Your task to perform on an android device: change the clock display to digital Image 0: 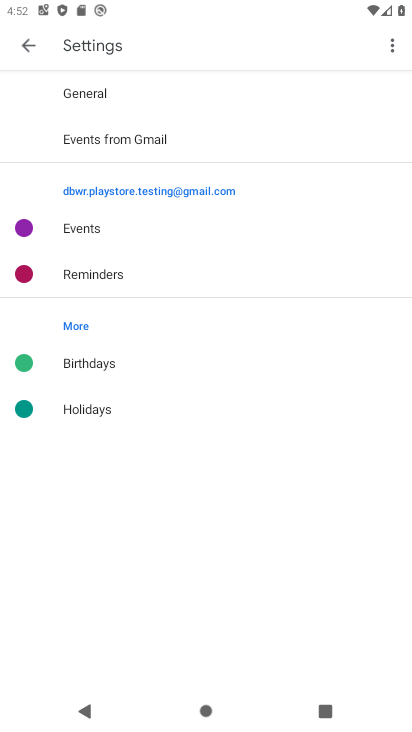
Step 0: press back button
Your task to perform on an android device: change the clock display to digital Image 1: 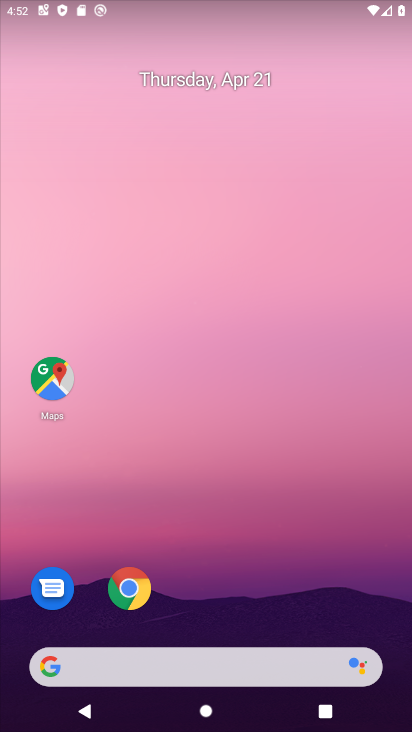
Step 1: drag from (196, 579) to (206, 96)
Your task to perform on an android device: change the clock display to digital Image 2: 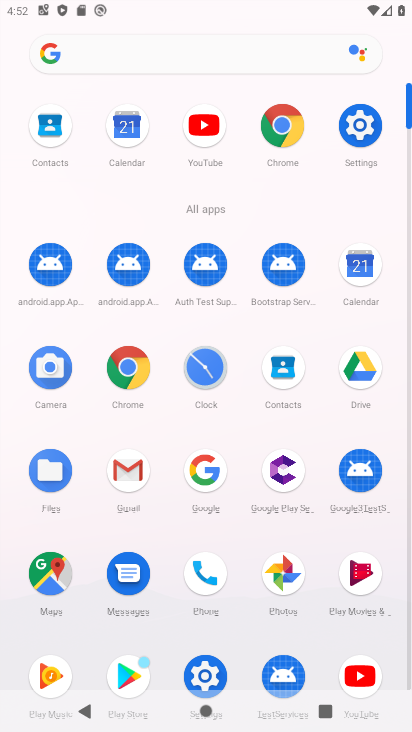
Step 2: click (213, 364)
Your task to perform on an android device: change the clock display to digital Image 3: 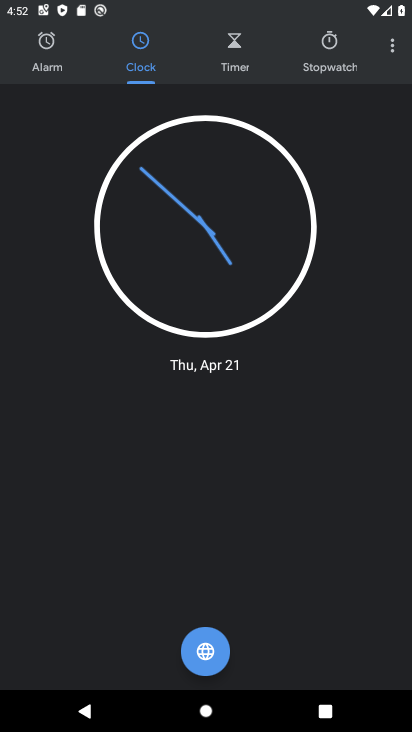
Step 3: drag from (395, 44) to (377, 125)
Your task to perform on an android device: change the clock display to digital Image 4: 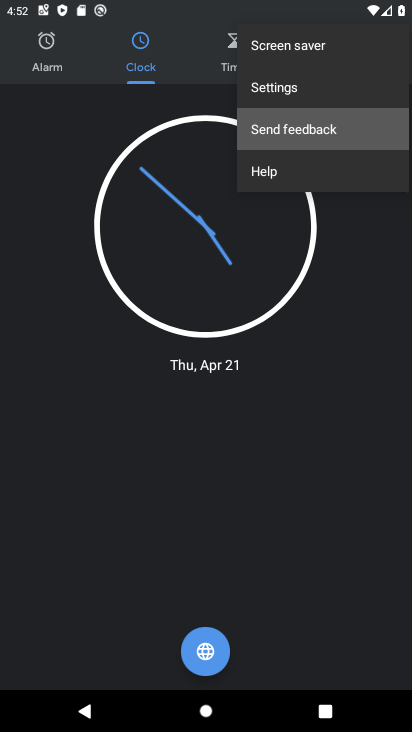
Step 4: click (362, 145)
Your task to perform on an android device: change the clock display to digital Image 5: 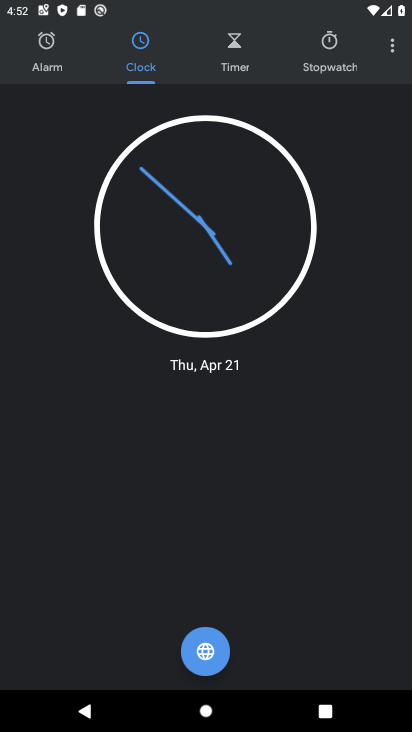
Step 5: click (392, 41)
Your task to perform on an android device: change the clock display to digital Image 6: 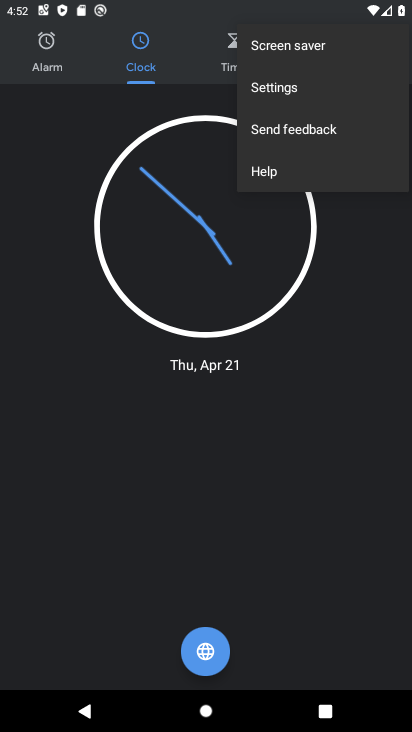
Step 6: click (281, 77)
Your task to perform on an android device: change the clock display to digital Image 7: 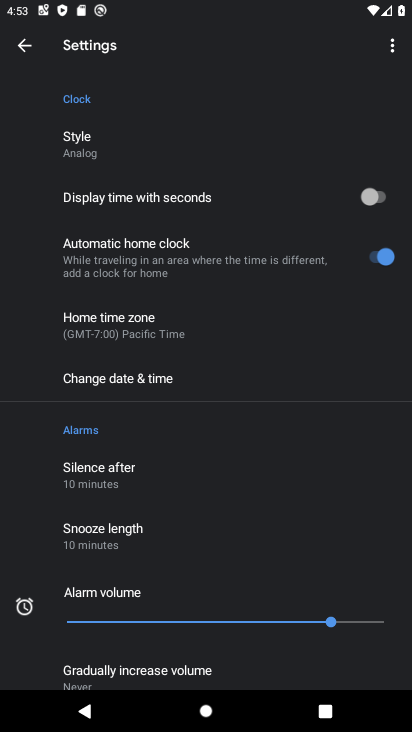
Step 7: click (86, 143)
Your task to perform on an android device: change the clock display to digital Image 8: 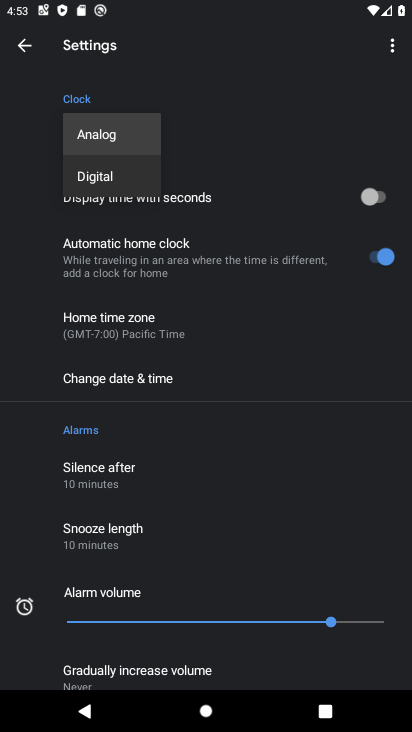
Step 8: click (102, 192)
Your task to perform on an android device: change the clock display to digital Image 9: 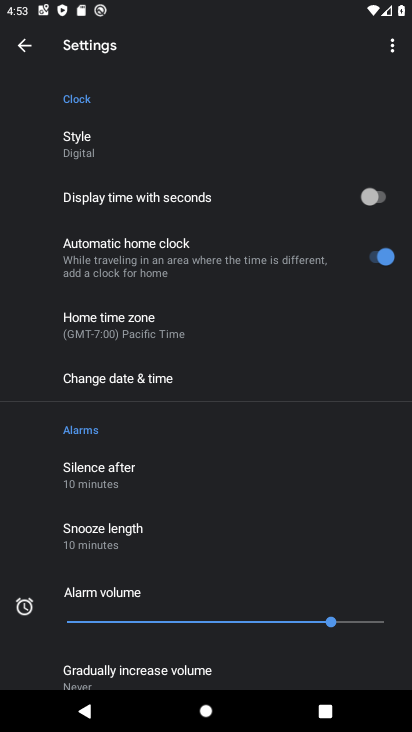
Step 9: task complete